Your task to perform on an android device: Turn on the flashlight Image 0: 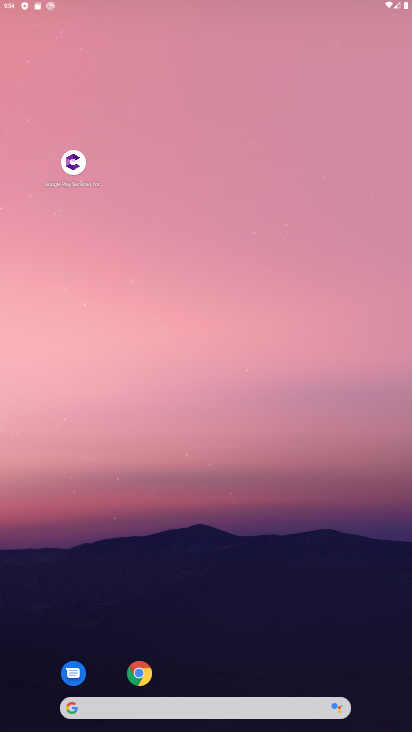
Step 0: press home button
Your task to perform on an android device: Turn on the flashlight Image 1: 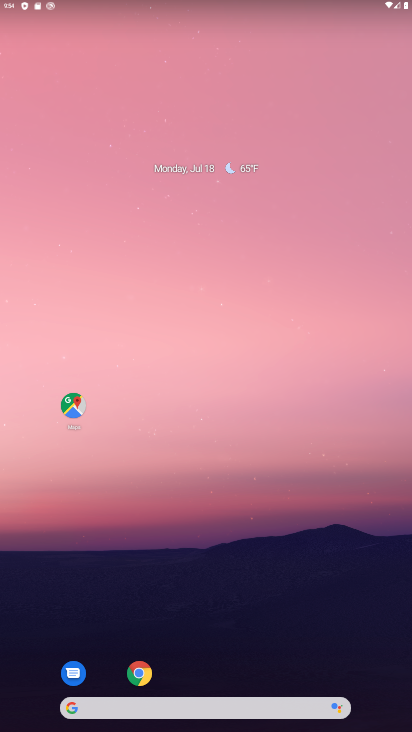
Step 1: drag from (284, 6) to (215, 582)
Your task to perform on an android device: Turn on the flashlight Image 2: 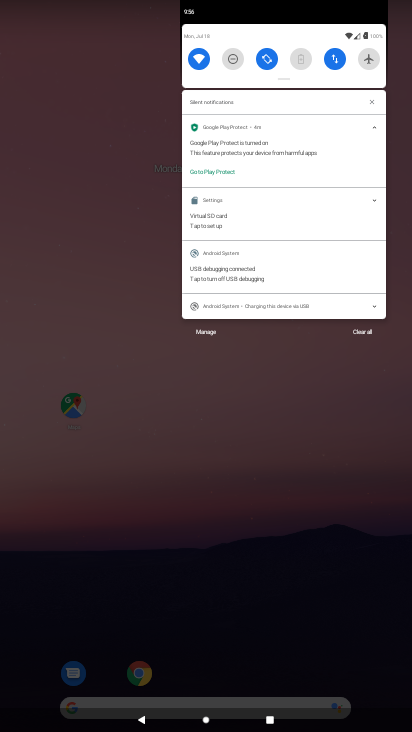
Step 2: drag from (249, 195) to (243, 456)
Your task to perform on an android device: Turn on the flashlight Image 3: 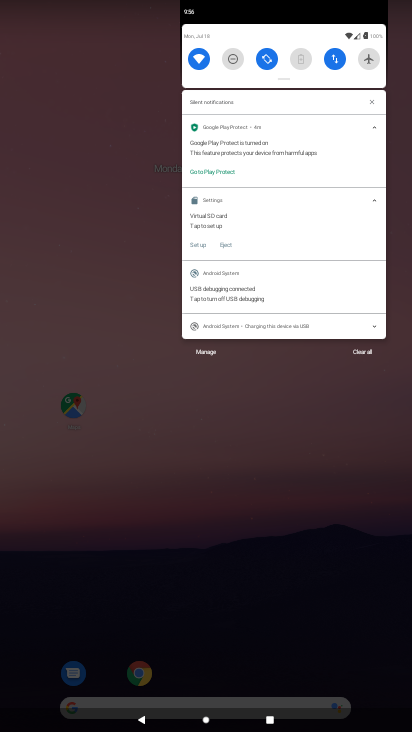
Step 3: drag from (325, 58) to (262, 499)
Your task to perform on an android device: Turn on the flashlight Image 4: 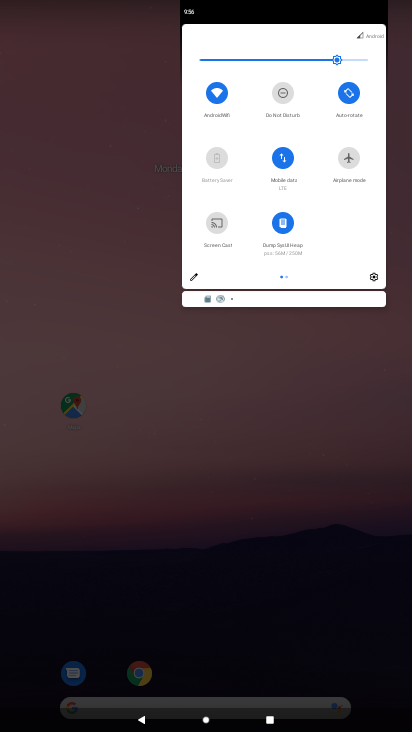
Step 4: click (190, 272)
Your task to perform on an android device: Turn on the flashlight Image 5: 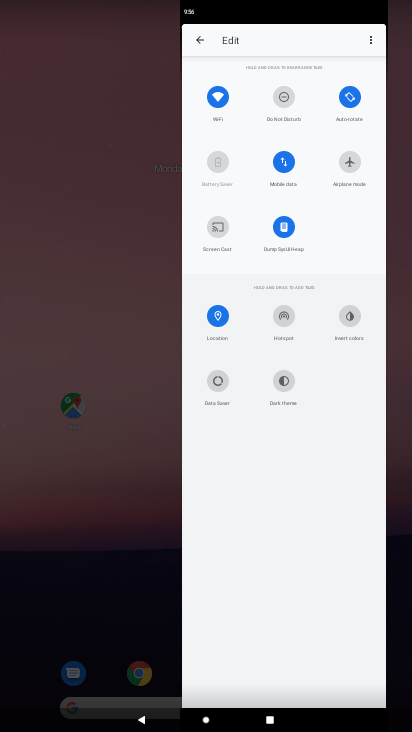
Step 5: task complete